Your task to perform on an android device: toggle priority inbox in the gmail app Image 0: 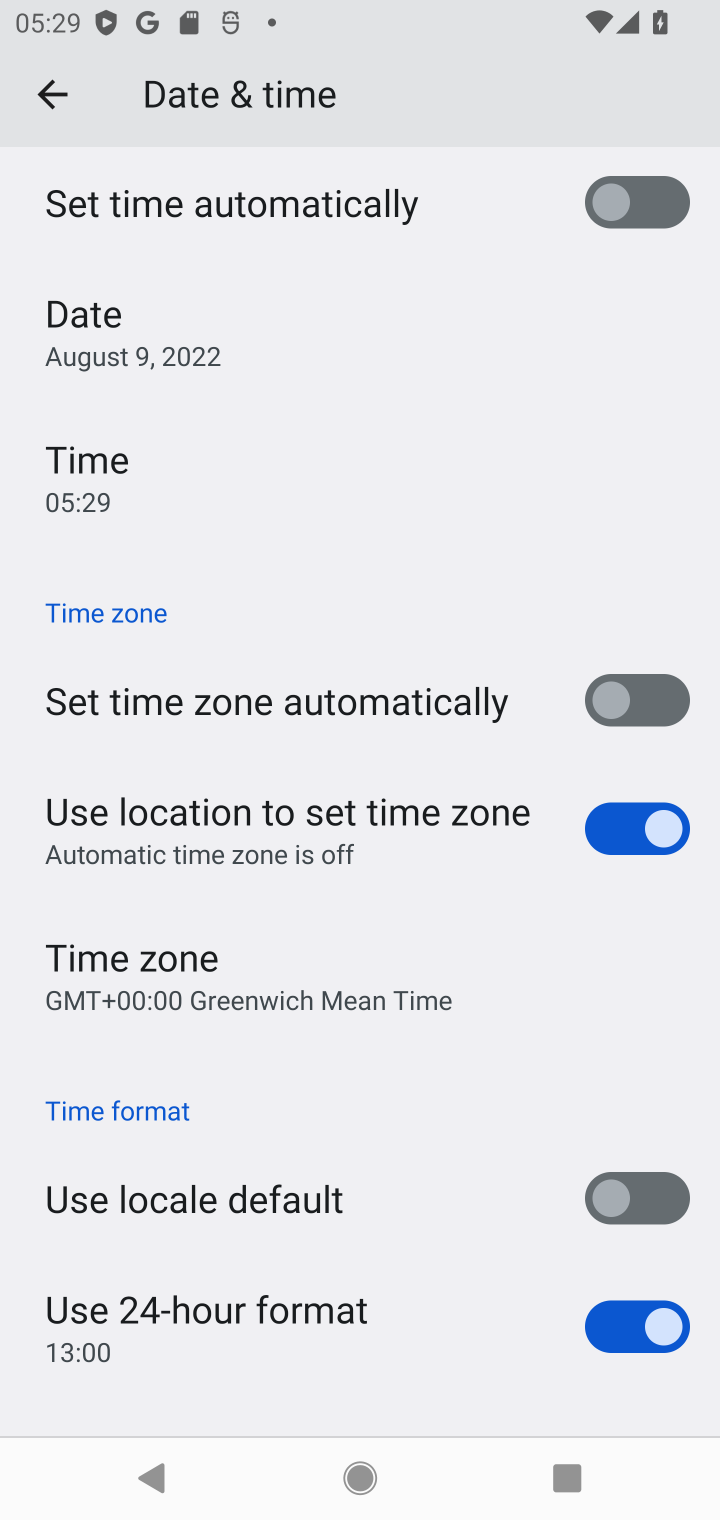
Step 0: press home button
Your task to perform on an android device: toggle priority inbox in the gmail app Image 1: 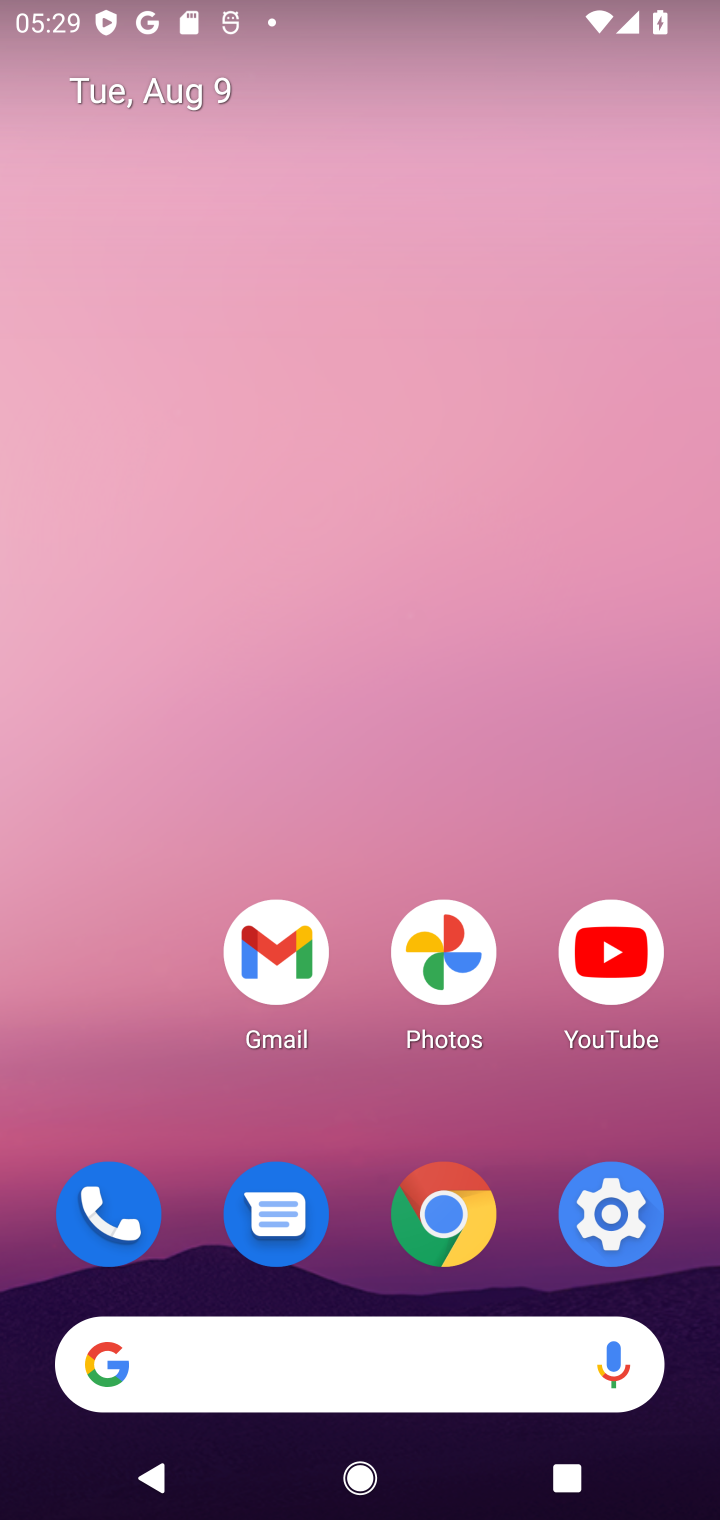
Step 1: drag from (488, 1399) to (580, 146)
Your task to perform on an android device: toggle priority inbox in the gmail app Image 2: 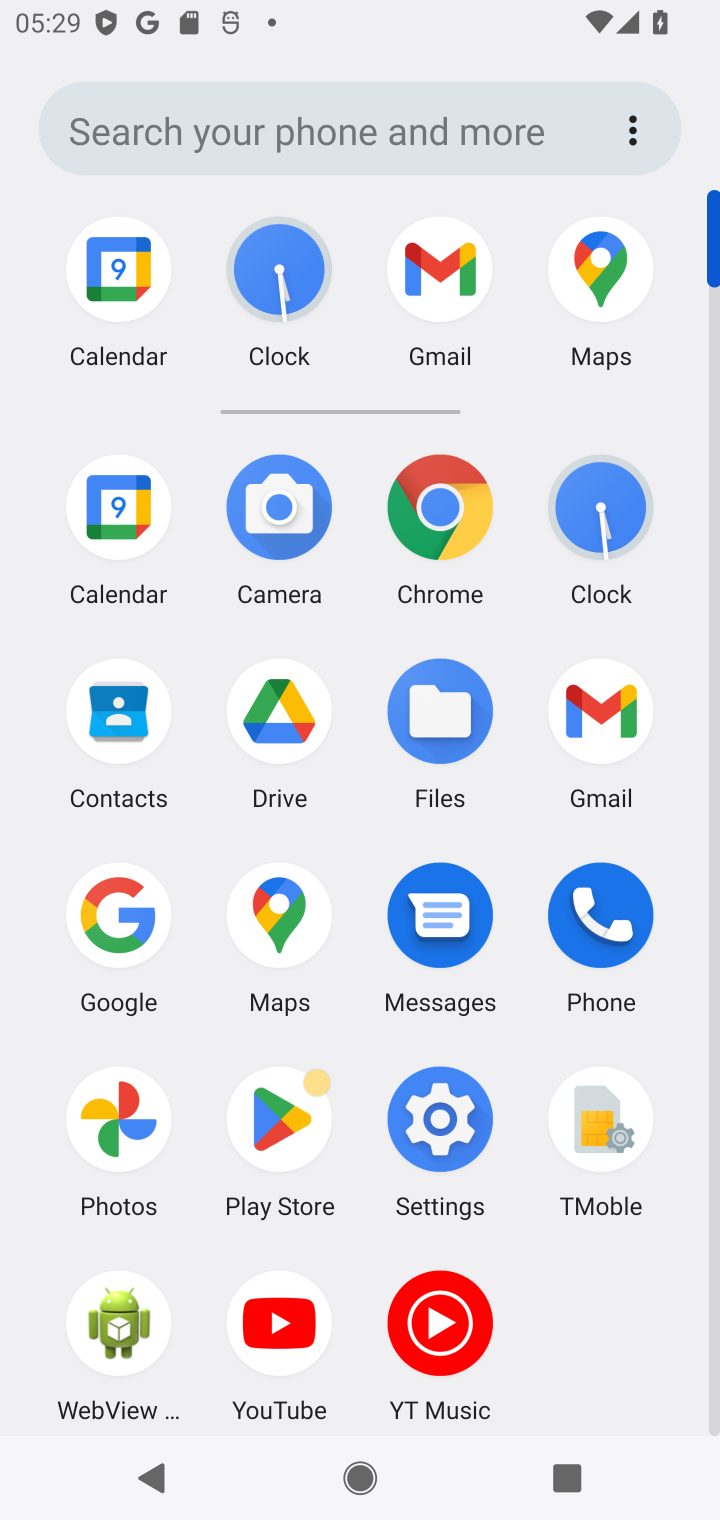
Step 2: click (426, 282)
Your task to perform on an android device: toggle priority inbox in the gmail app Image 3: 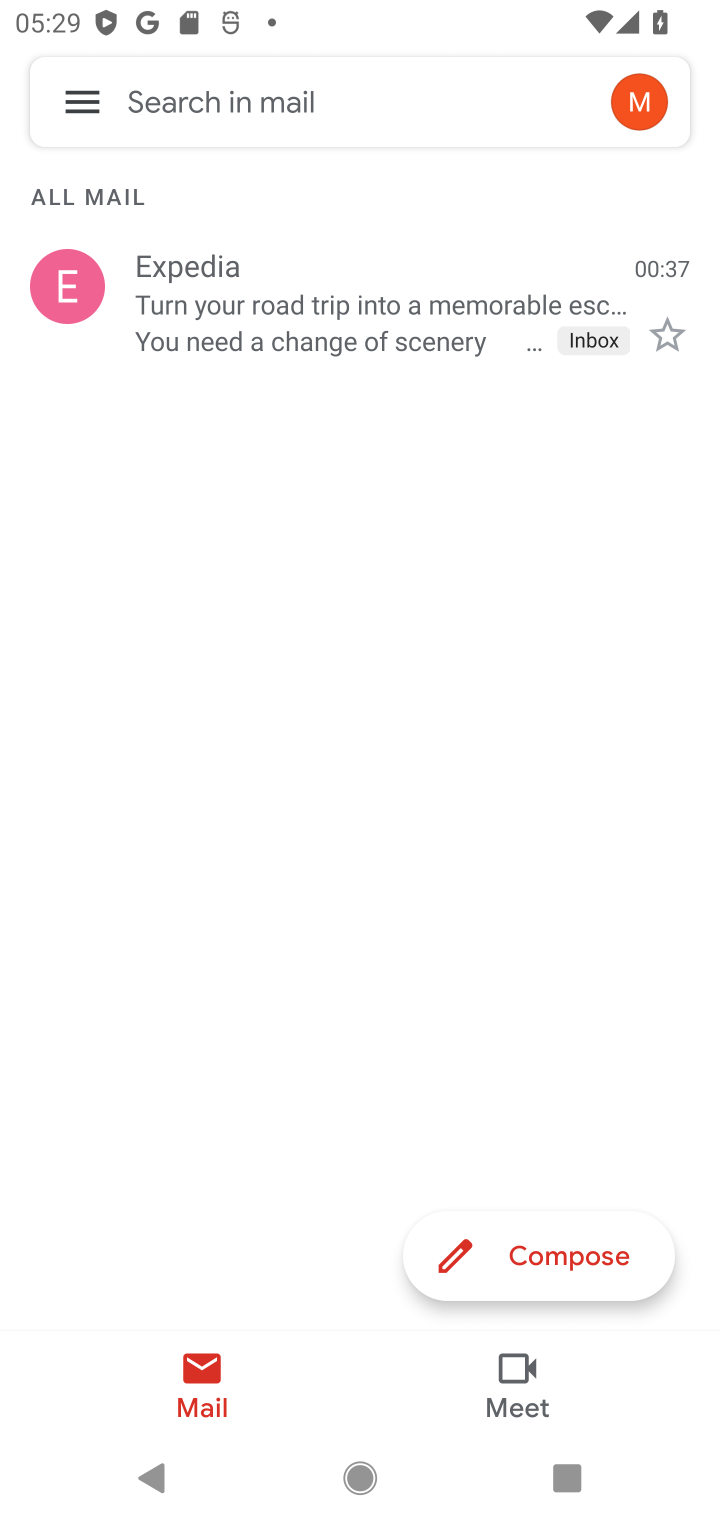
Step 3: click (76, 107)
Your task to perform on an android device: toggle priority inbox in the gmail app Image 4: 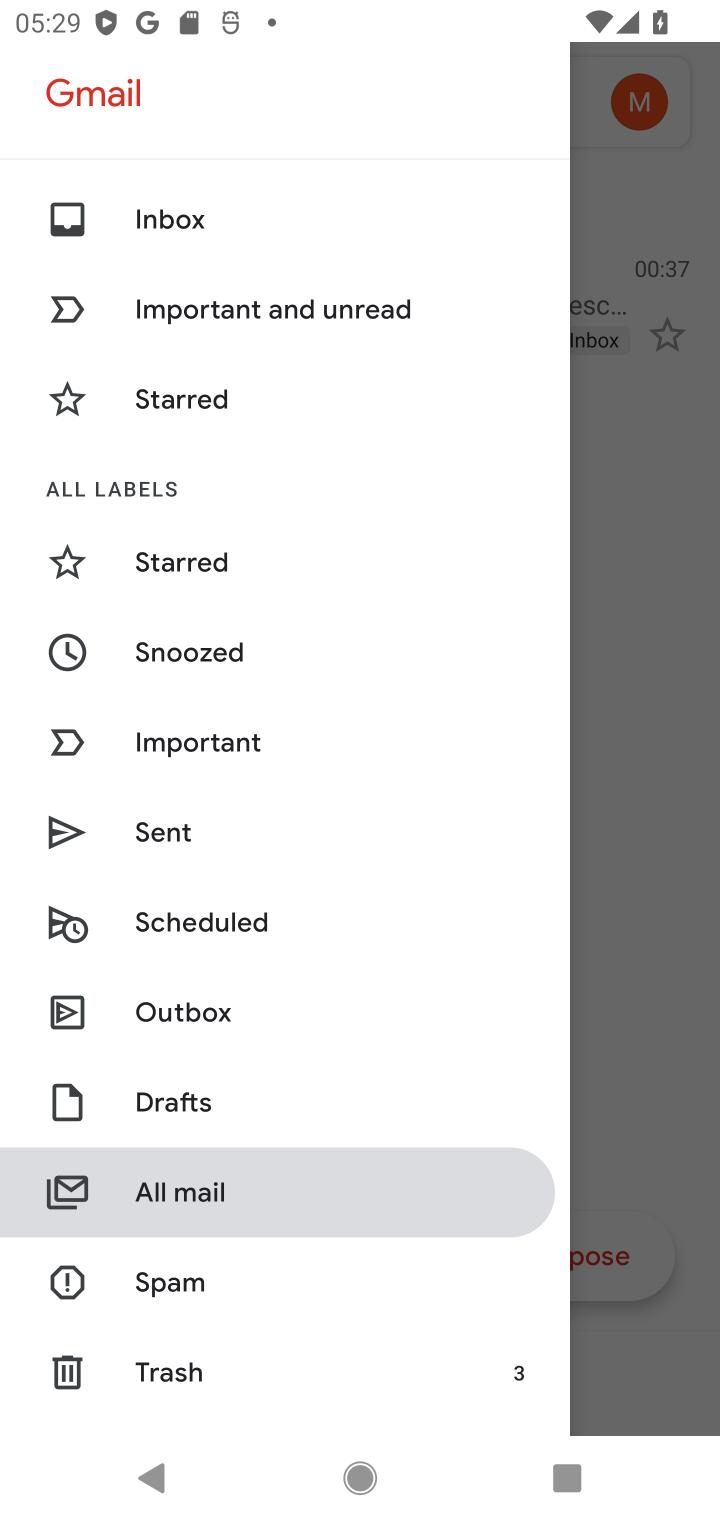
Step 4: drag from (240, 1215) to (315, 655)
Your task to perform on an android device: toggle priority inbox in the gmail app Image 5: 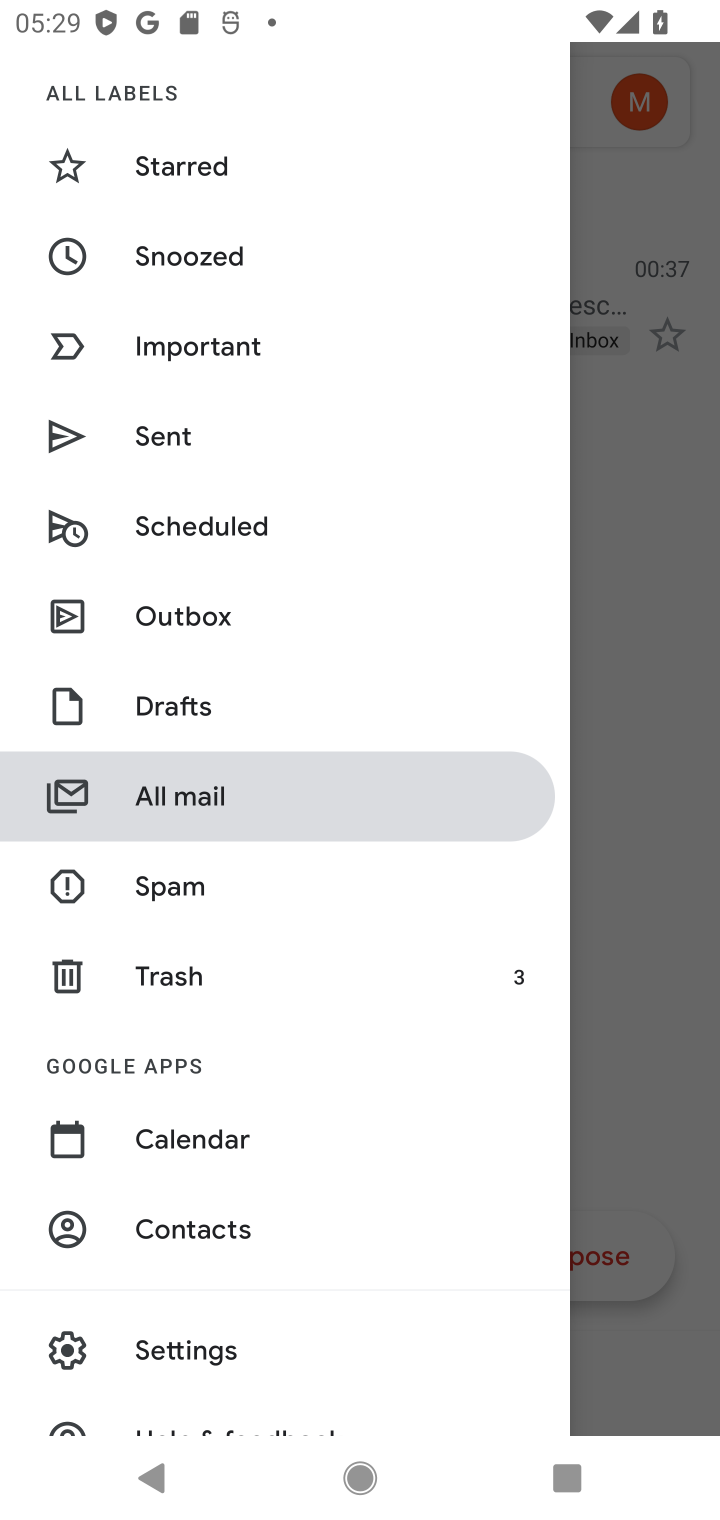
Step 5: click (213, 1337)
Your task to perform on an android device: toggle priority inbox in the gmail app Image 6: 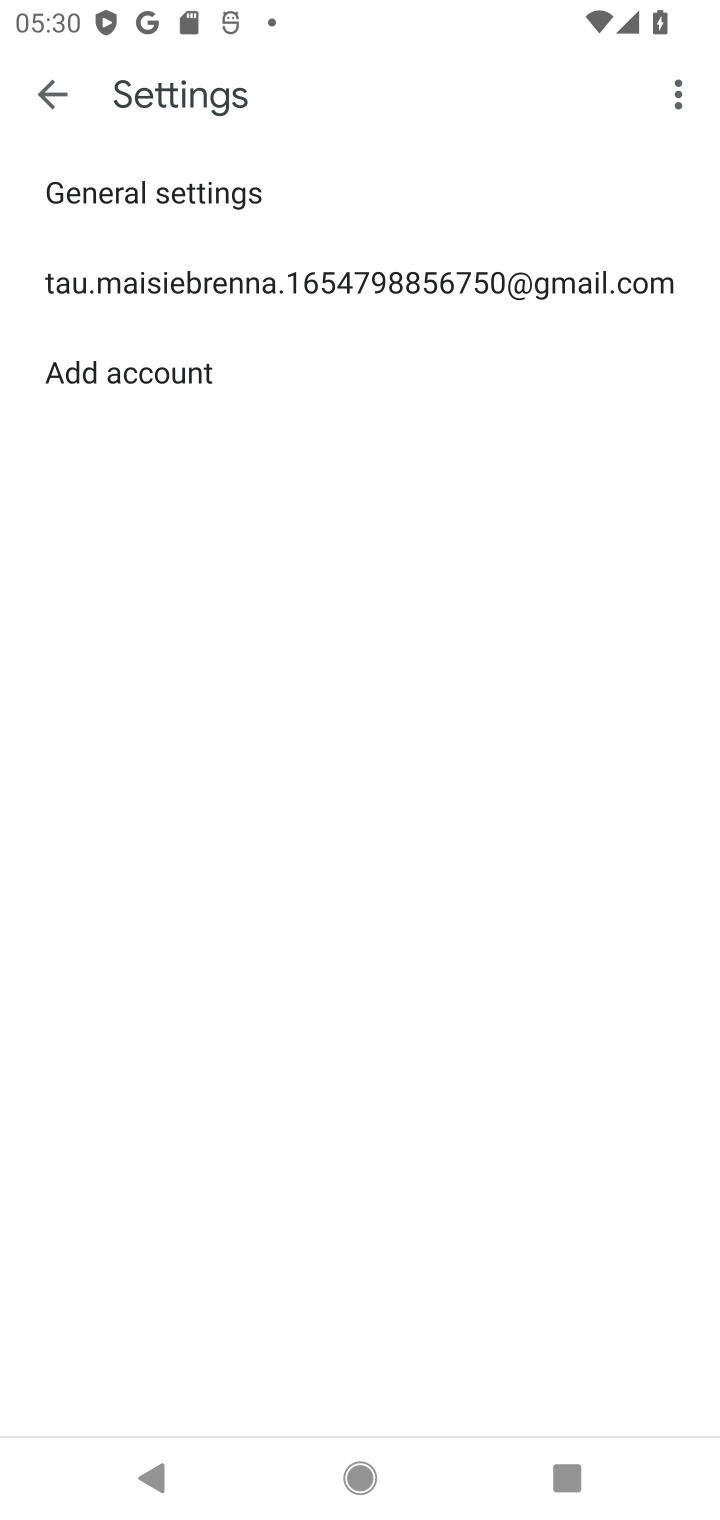
Step 6: click (232, 254)
Your task to perform on an android device: toggle priority inbox in the gmail app Image 7: 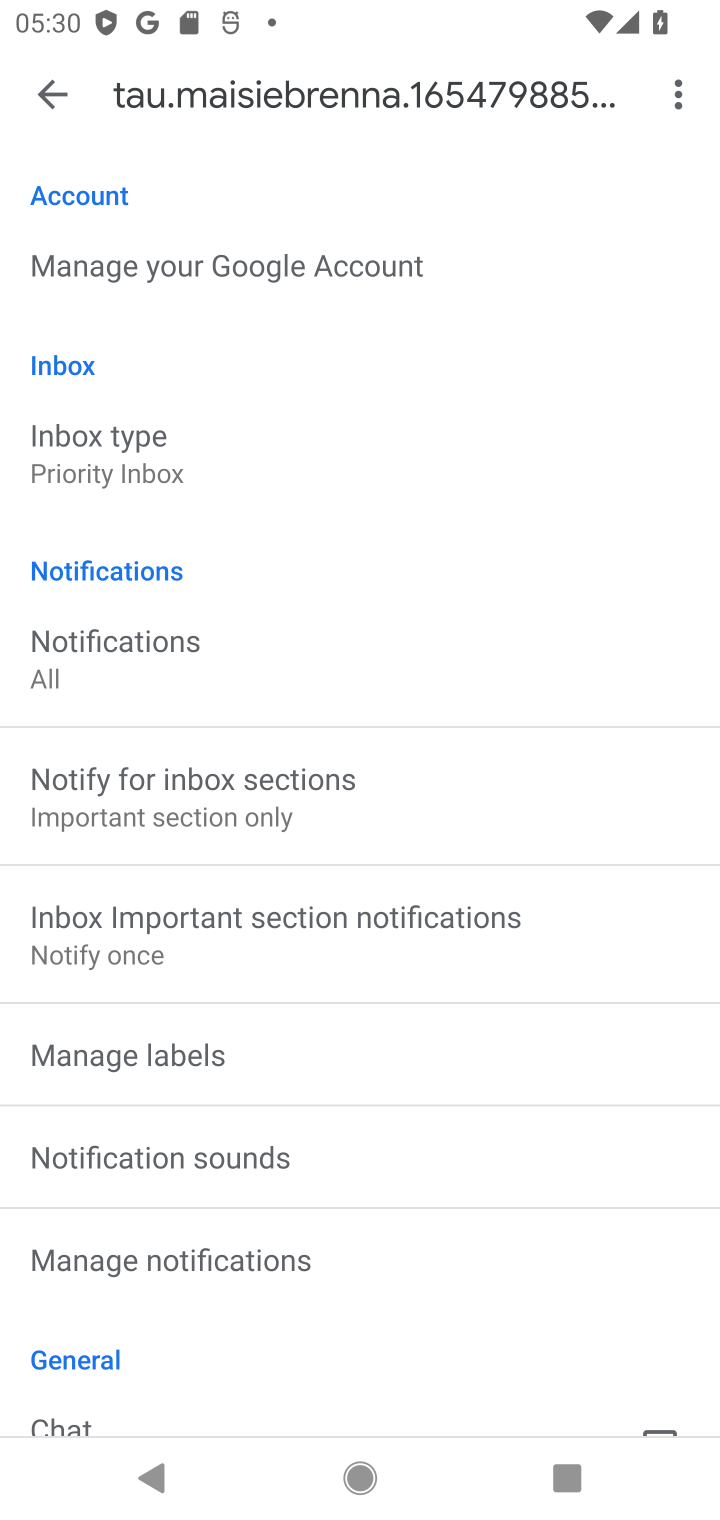
Step 7: click (194, 452)
Your task to perform on an android device: toggle priority inbox in the gmail app Image 8: 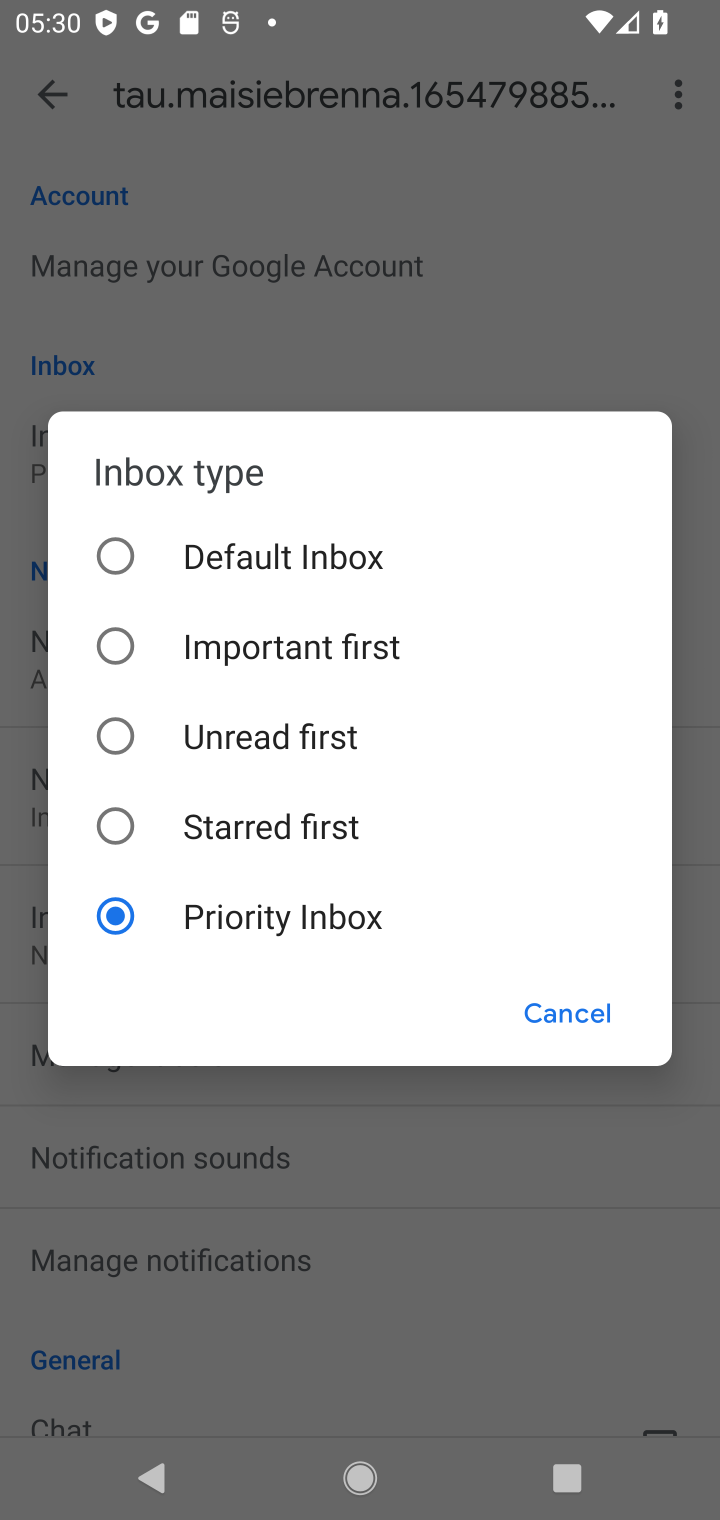
Step 8: task complete